Your task to perform on an android device: all mails in gmail Image 0: 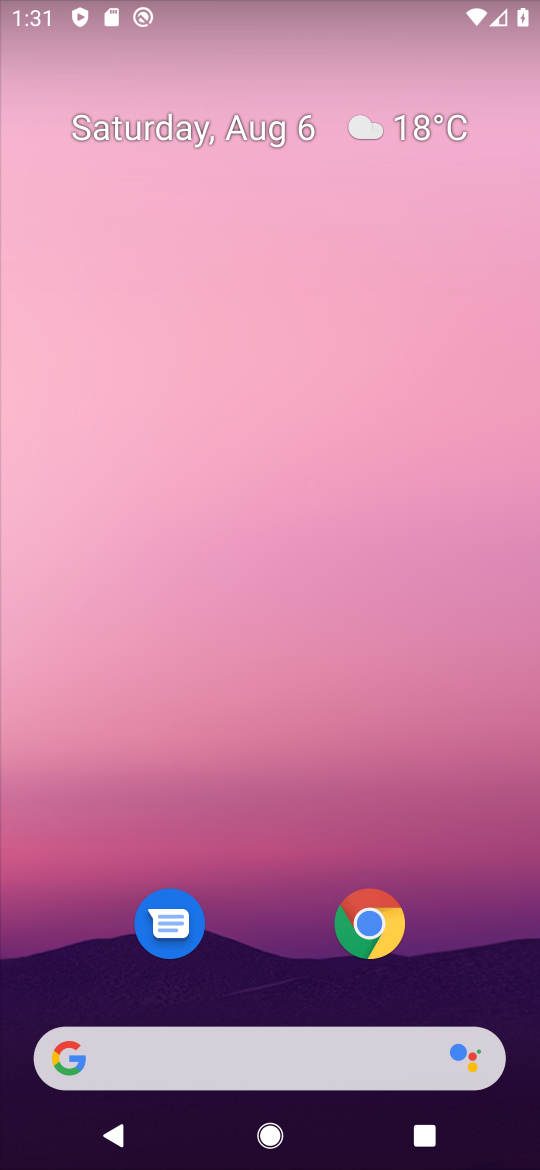
Step 0: drag from (279, 977) to (350, 164)
Your task to perform on an android device: all mails in gmail Image 1: 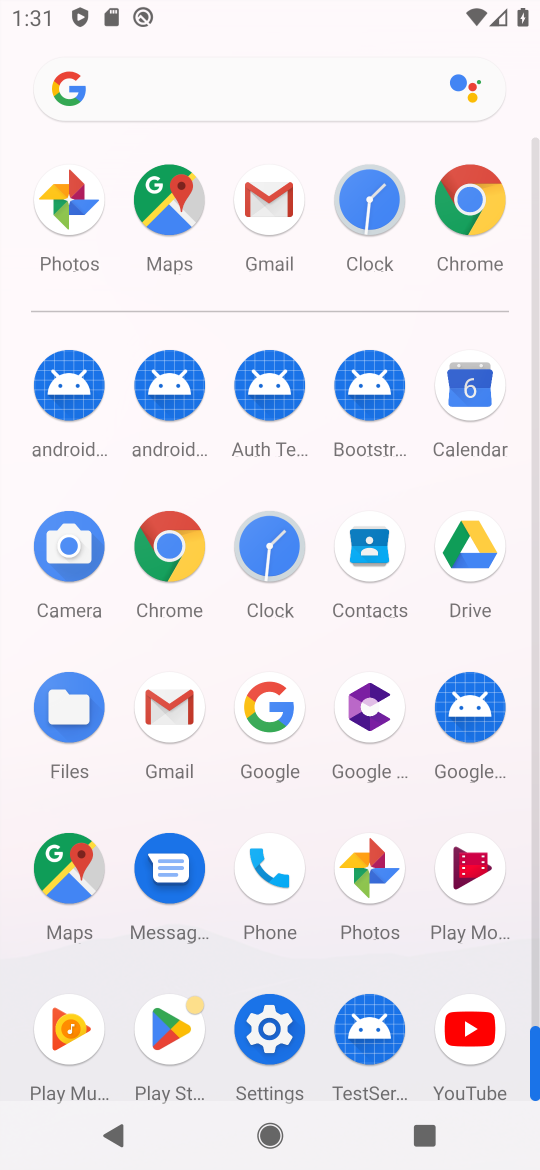
Step 1: click (180, 682)
Your task to perform on an android device: all mails in gmail Image 2: 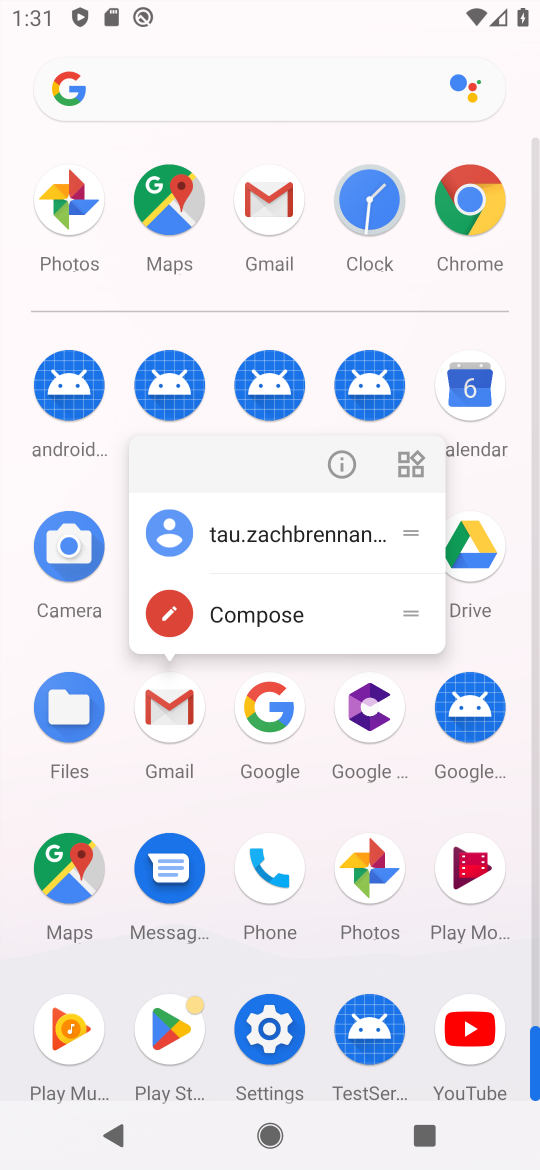
Step 2: click (343, 442)
Your task to perform on an android device: all mails in gmail Image 3: 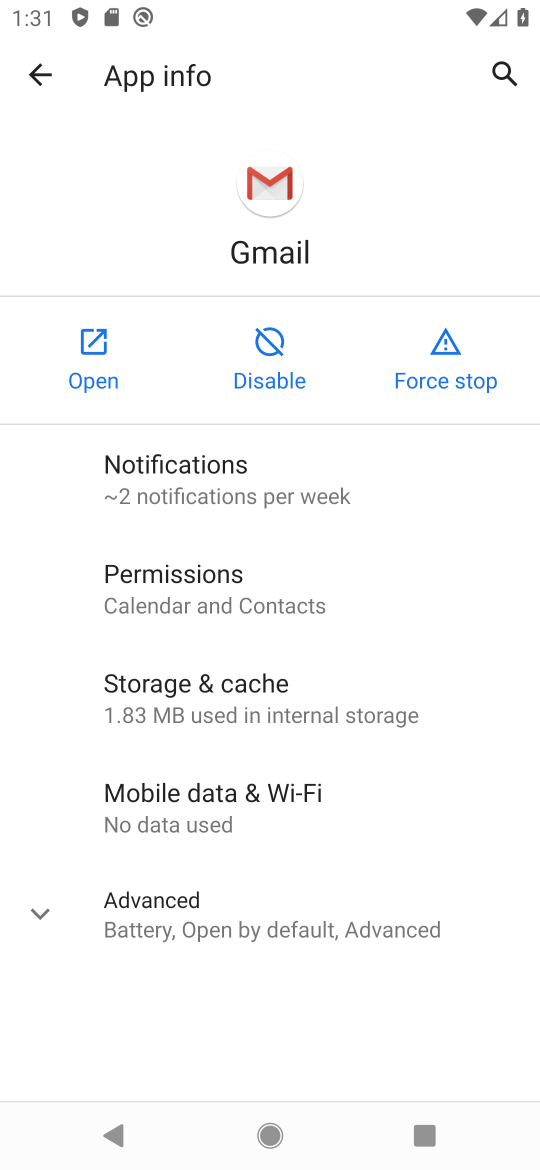
Step 3: click (101, 350)
Your task to perform on an android device: all mails in gmail Image 4: 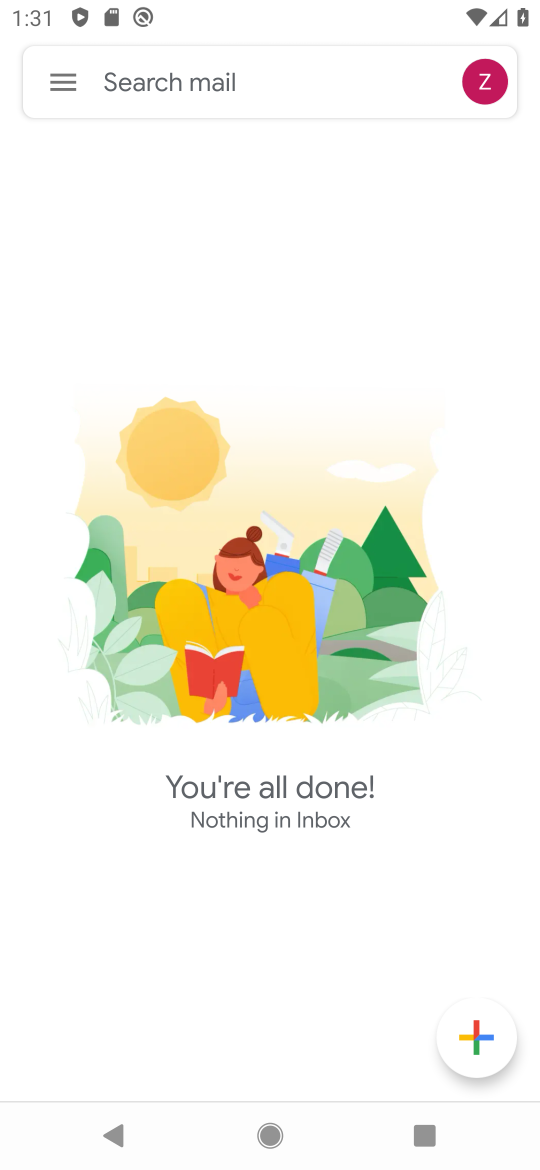
Step 4: click (65, 102)
Your task to perform on an android device: all mails in gmail Image 5: 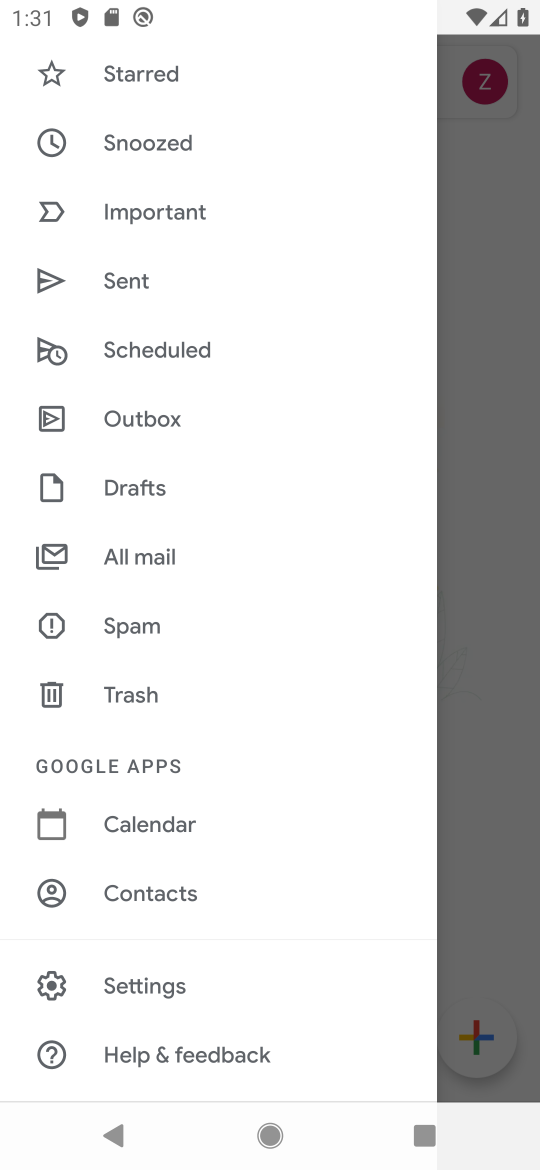
Step 5: click (138, 541)
Your task to perform on an android device: all mails in gmail Image 6: 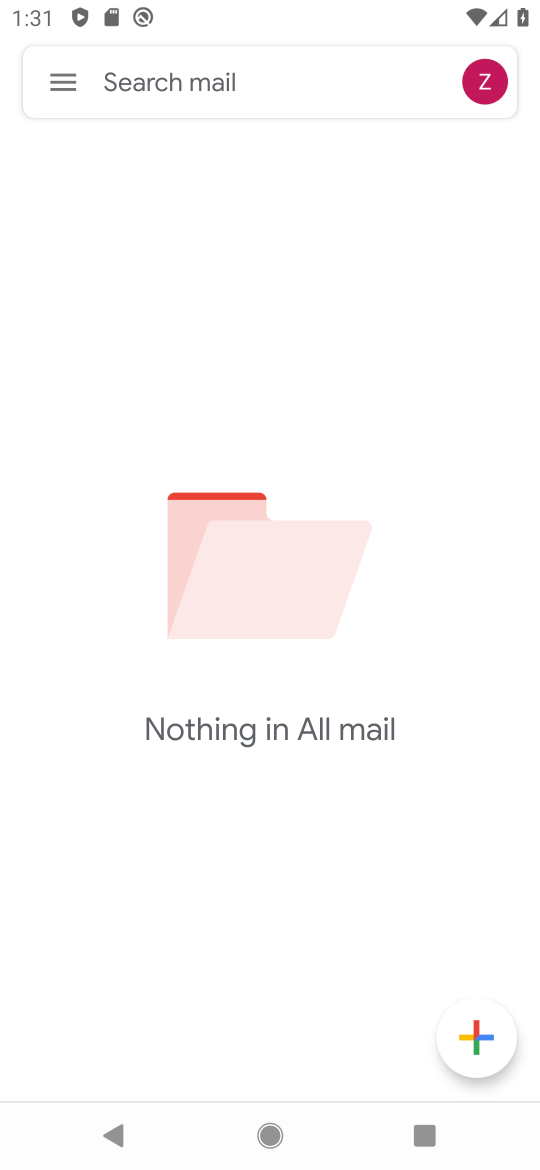
Step 6: task complete